Your task to perform on an android device: check data usage Image 0: 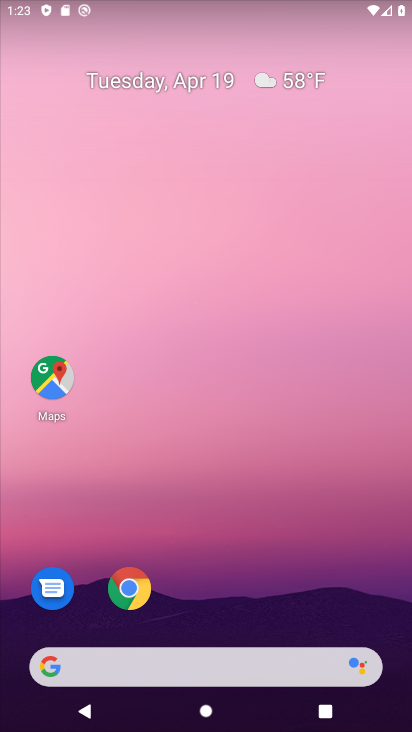
Step 0: drag from (319, 571) to (334, 34)
Your task to perform on an android device: check data usage Image 1: 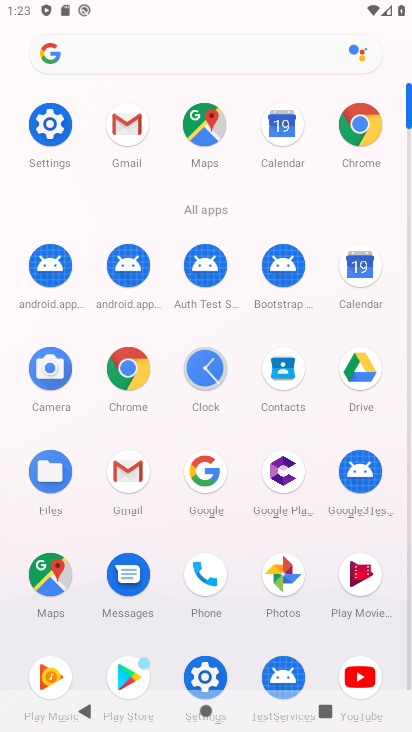
Step 1: click (55, 127)
Your task to perform on an android device: check data usage Image 2: 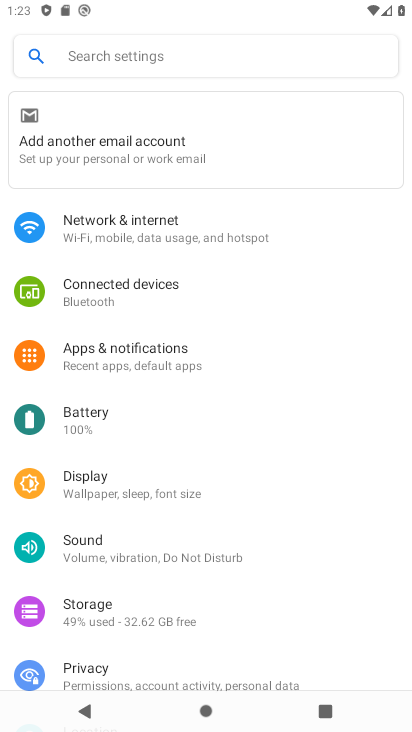
Step 2: click (151, 234)
Your task to perform on an android device: check data usage Image 3: 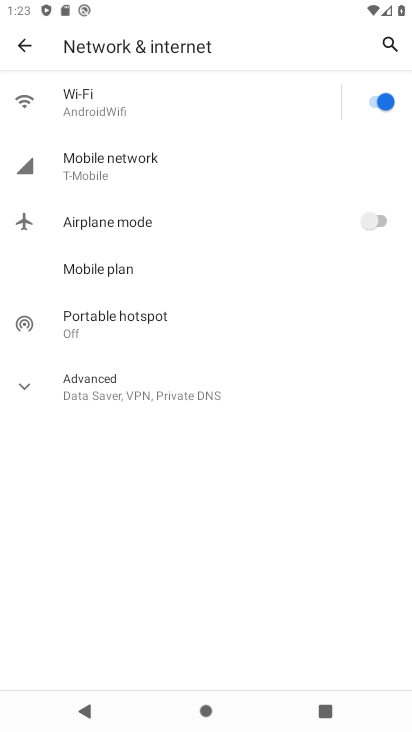
Step 3: click (244, 165)
Your task to perform on an android device: check data usage Image 4: 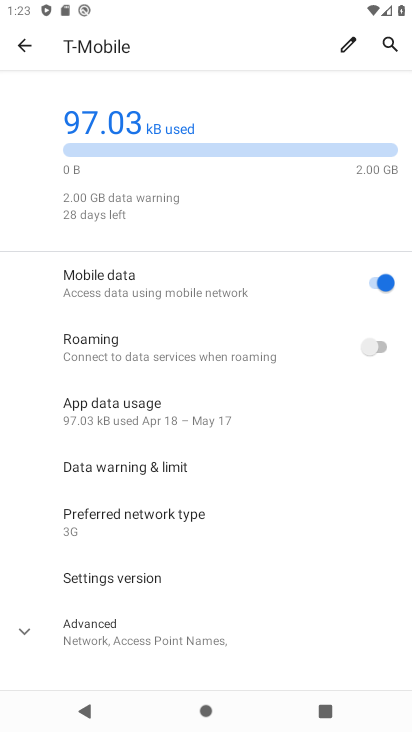
Step 4: task complete